Your task to perform on an android device: Check the weather Image 0: 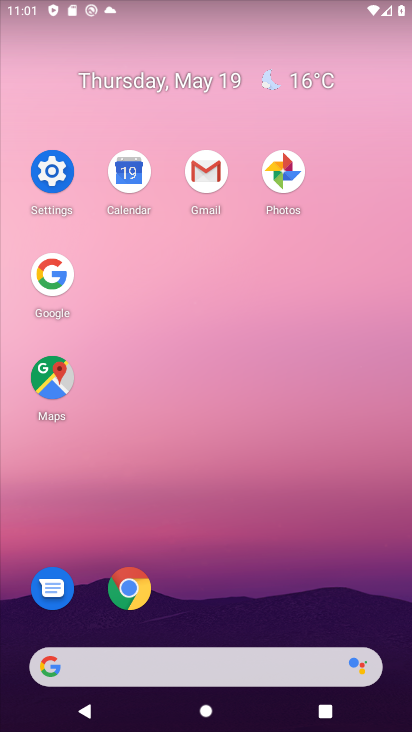
Step 0: click (54, 294)
Your task to perform on an android device: Check the weather Image 1: 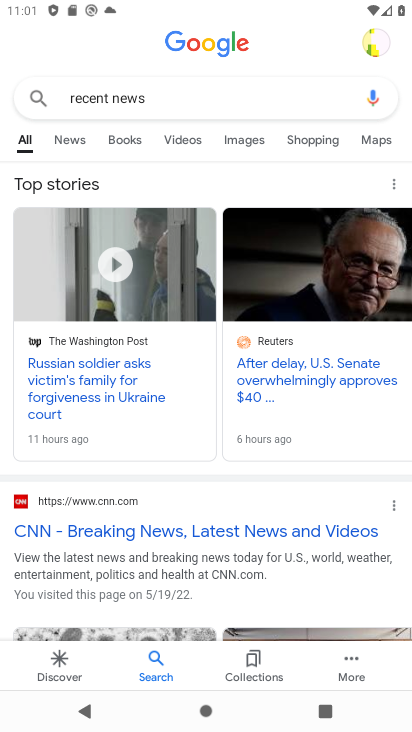
Step 1: click (208, 88)
Your task to perform on an android device: Check the weather Image 2: 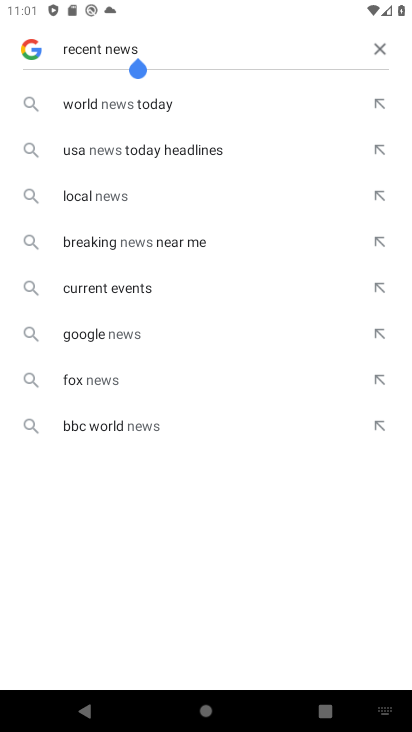
Step 2: click (377, 52)
Your task to perform on an android device: Check the weather Image 3: 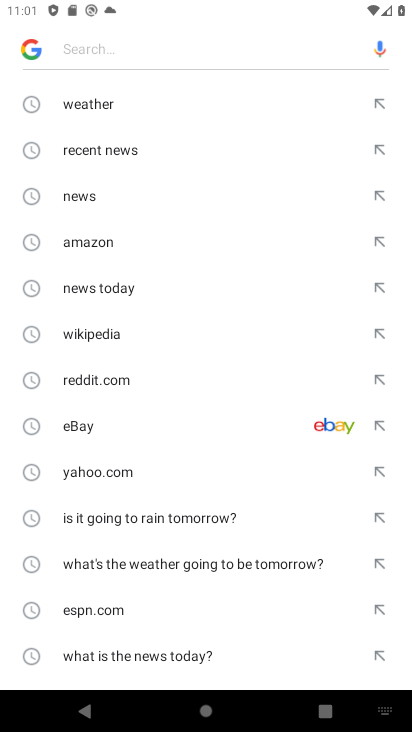
Step 3: click (126, 109)
Your task to perform on an android device: Check the weather Image 4: 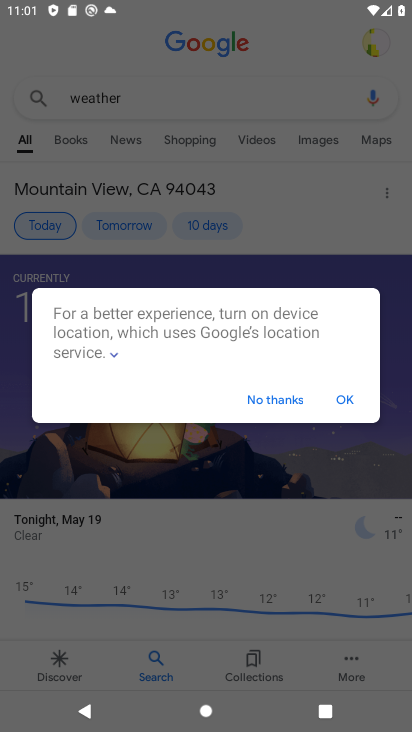
Step 4: task complete